Your task to perform on an android device: Go to sound settings Image 0: 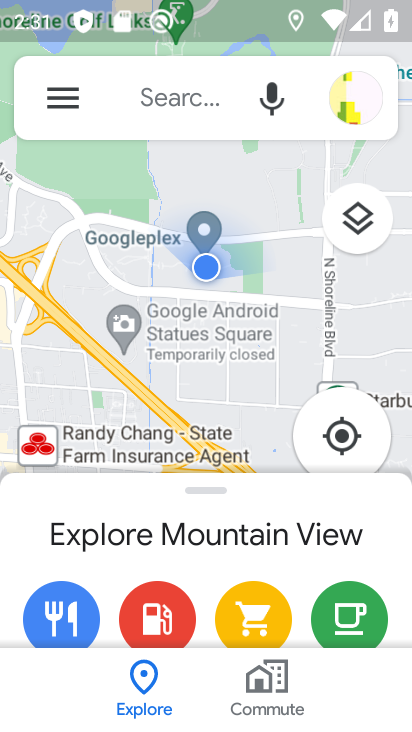
Step 0: press home button
Your task to perform on an android device: Go to sound settings Image 1: 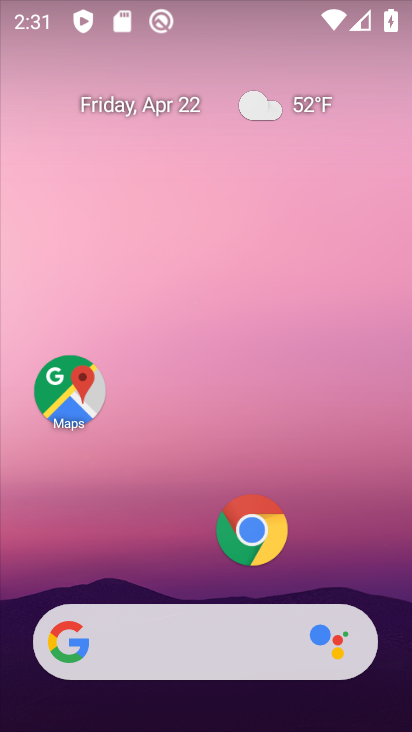
Step 1: drag from (196, 604) to (222, 130)
Your task to perform on an android device: Go to sound settings Image 2: 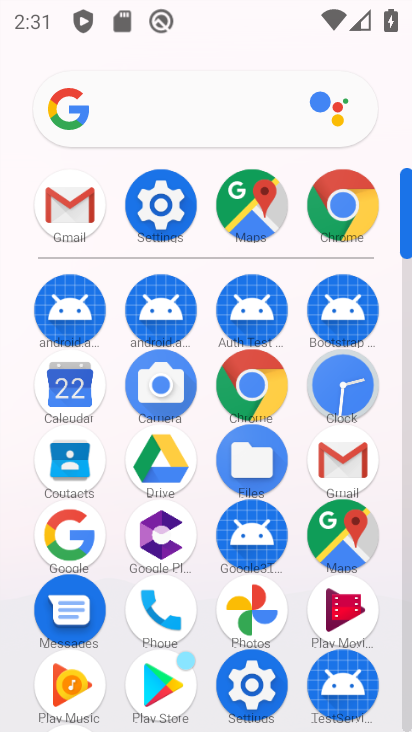
Step 2: click (152, 202)
Your task to perform on an android device: Go to sound settings Image 3: 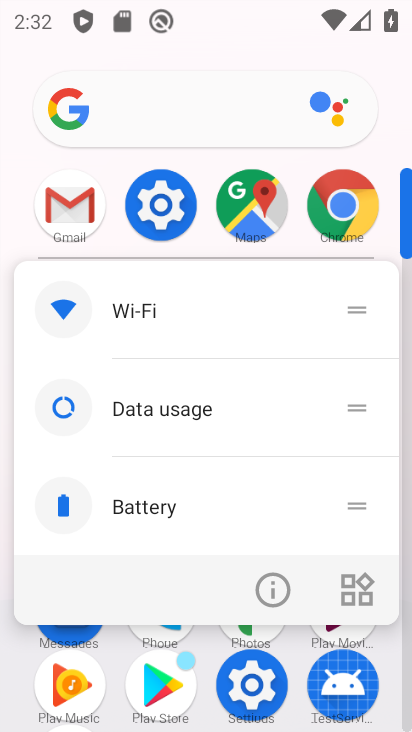
Step 3: click (138, 205)
Your task to perform on an android device: Go to sound settings Image 4: 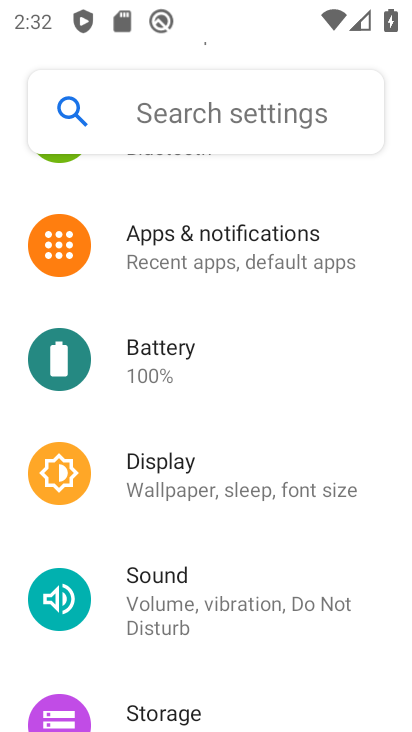
Step 4: click (187, 585)
Your task to perform on an android device: Go to sound settings Image 5: 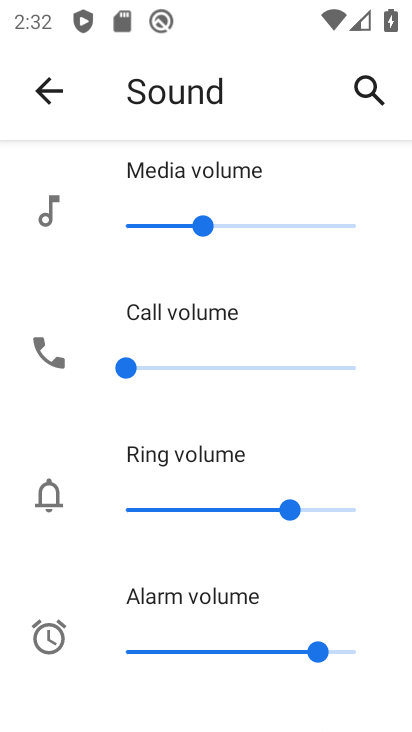
Step 5: task complete